Your task to perform on an android device: open chrome privacy settings Image 0: 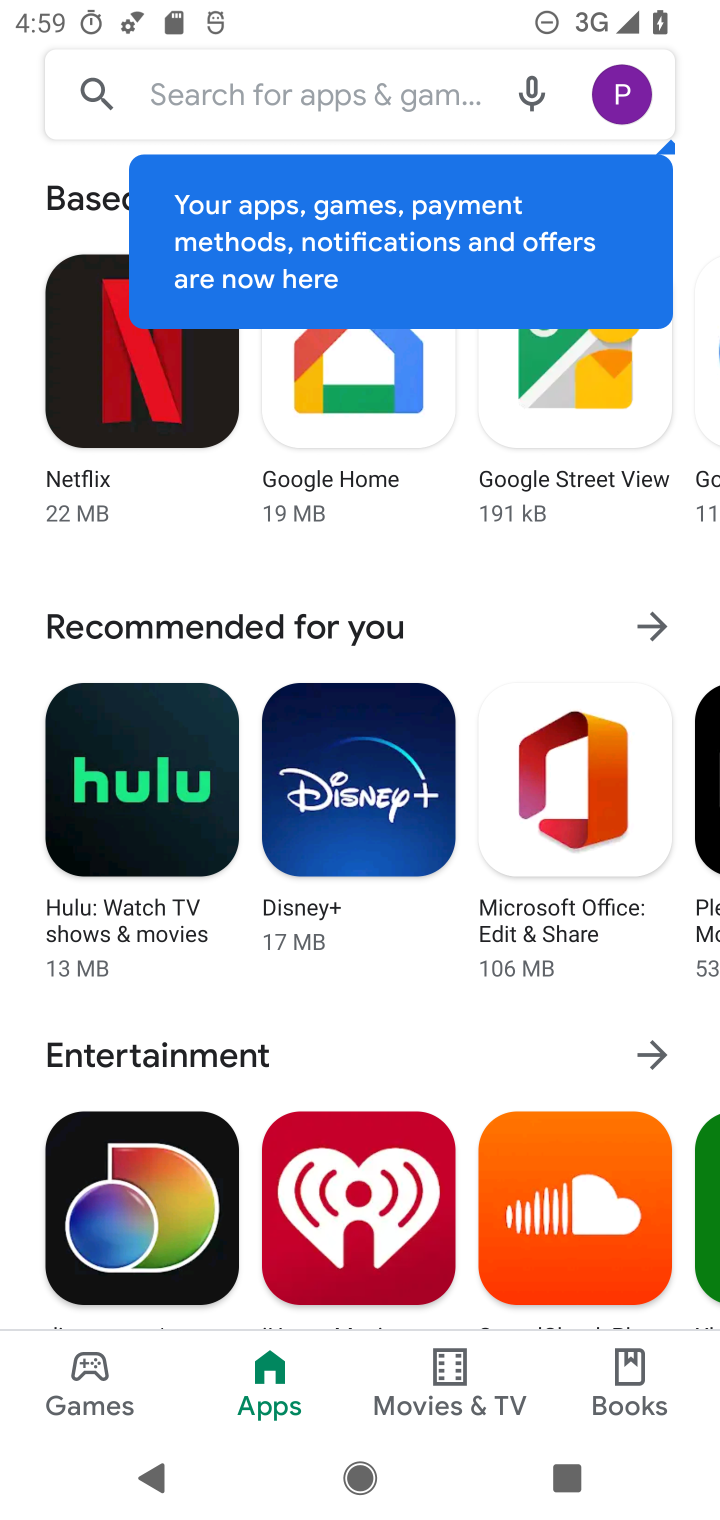
Step 0: press home button
Your task to perform on an android device: open chrome privacy settings Image 1: 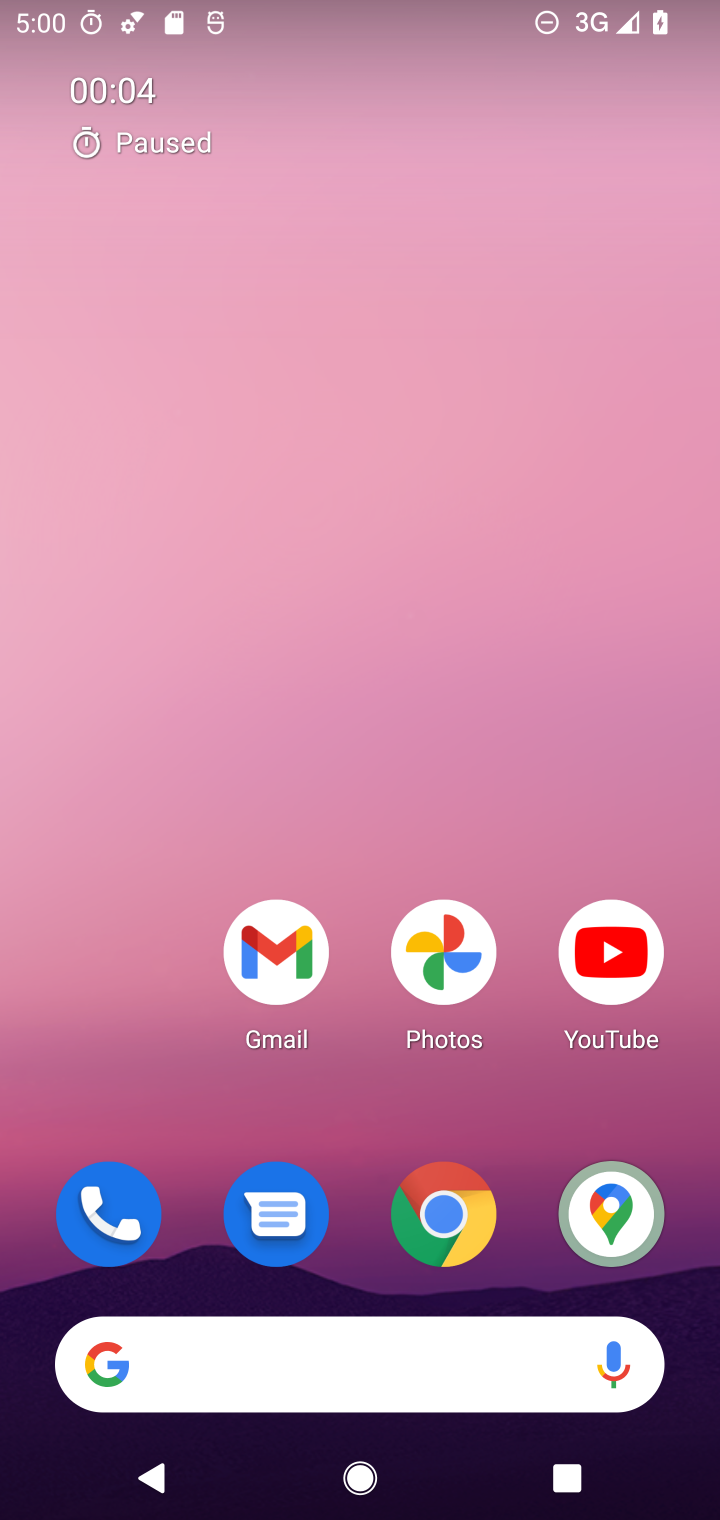
Step 1: click (444, 1232)
Your task to perform on an android device: open chrome privacy settings Image 2: 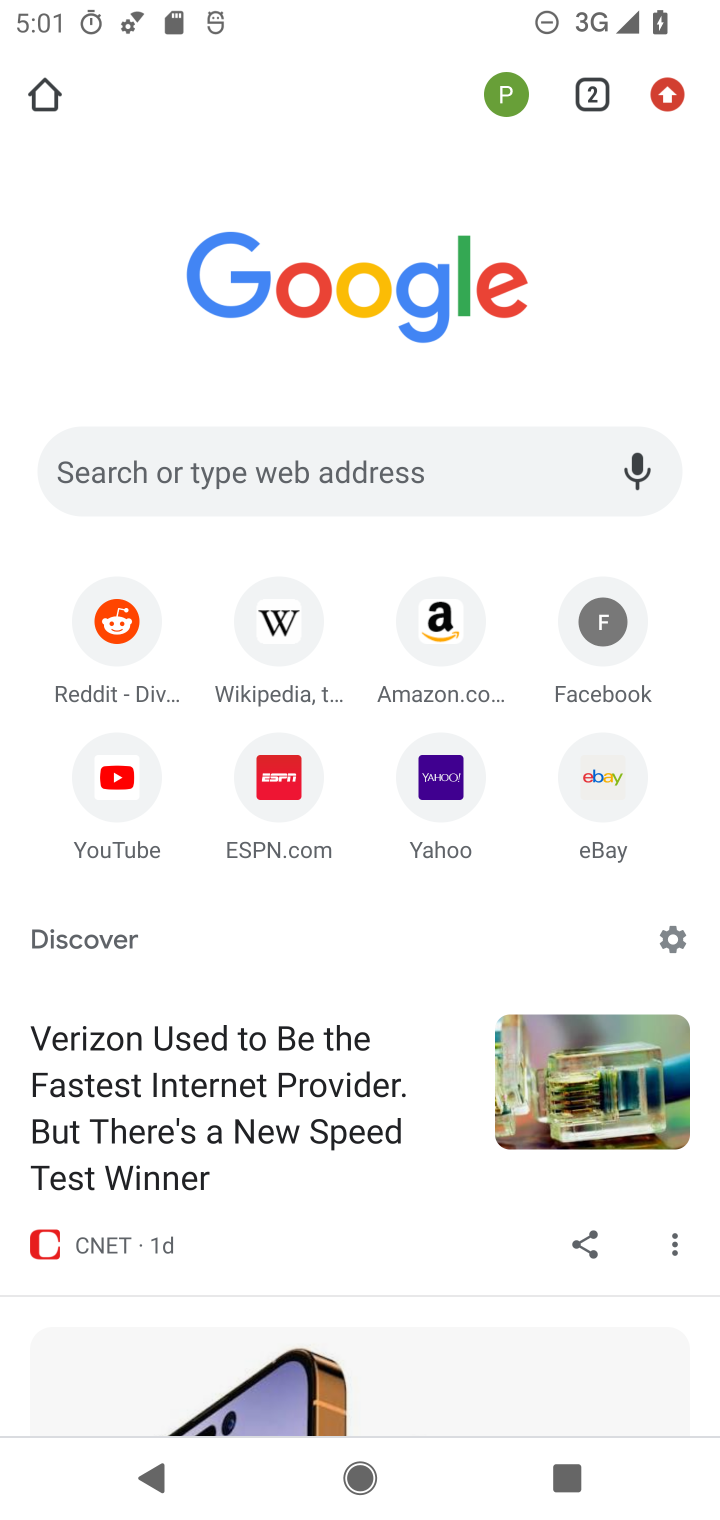
Step 2: click (668, 94)
Your task to perform on an android device: open chrome privacy settings Image 3: 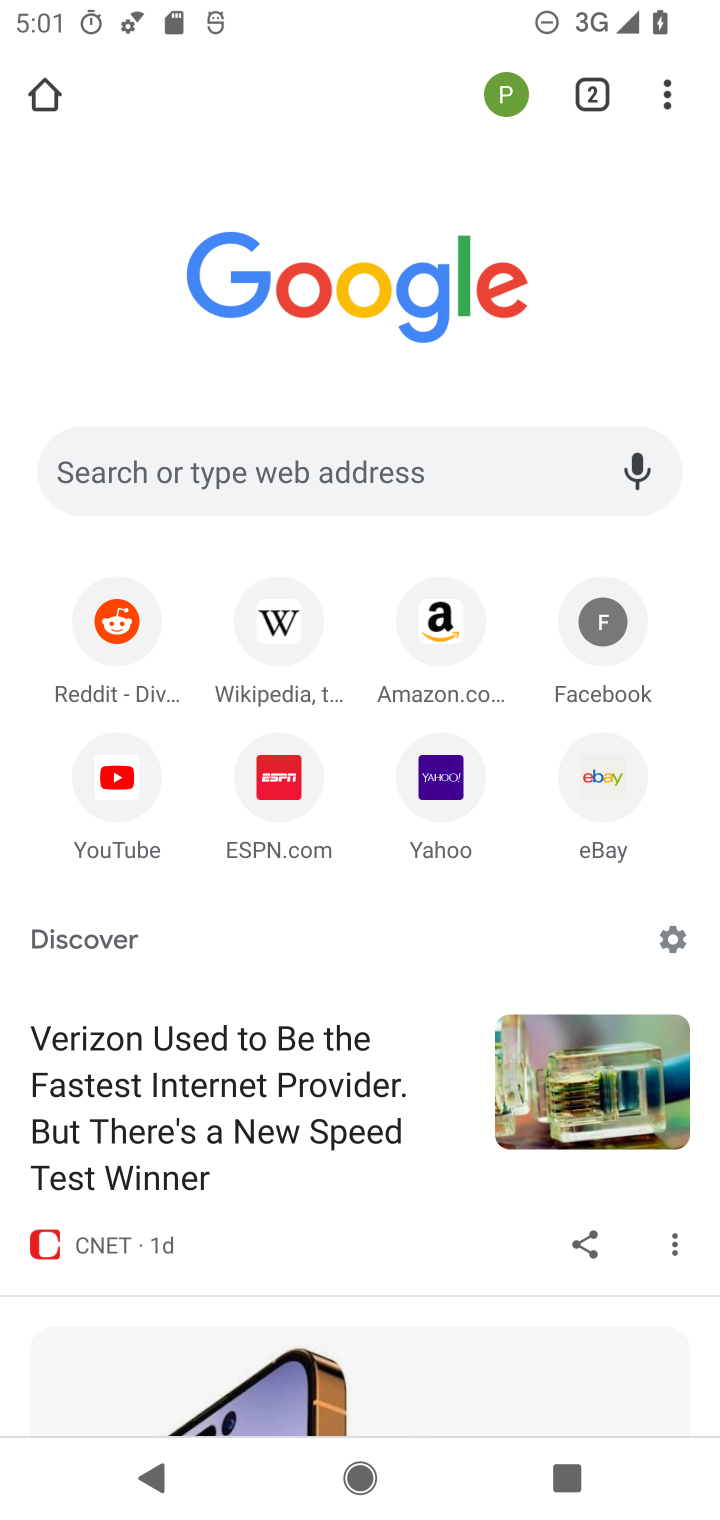
Step 3: click (668, 94)
Your task to perform on an android device: open chrome privacy settings Image 4: 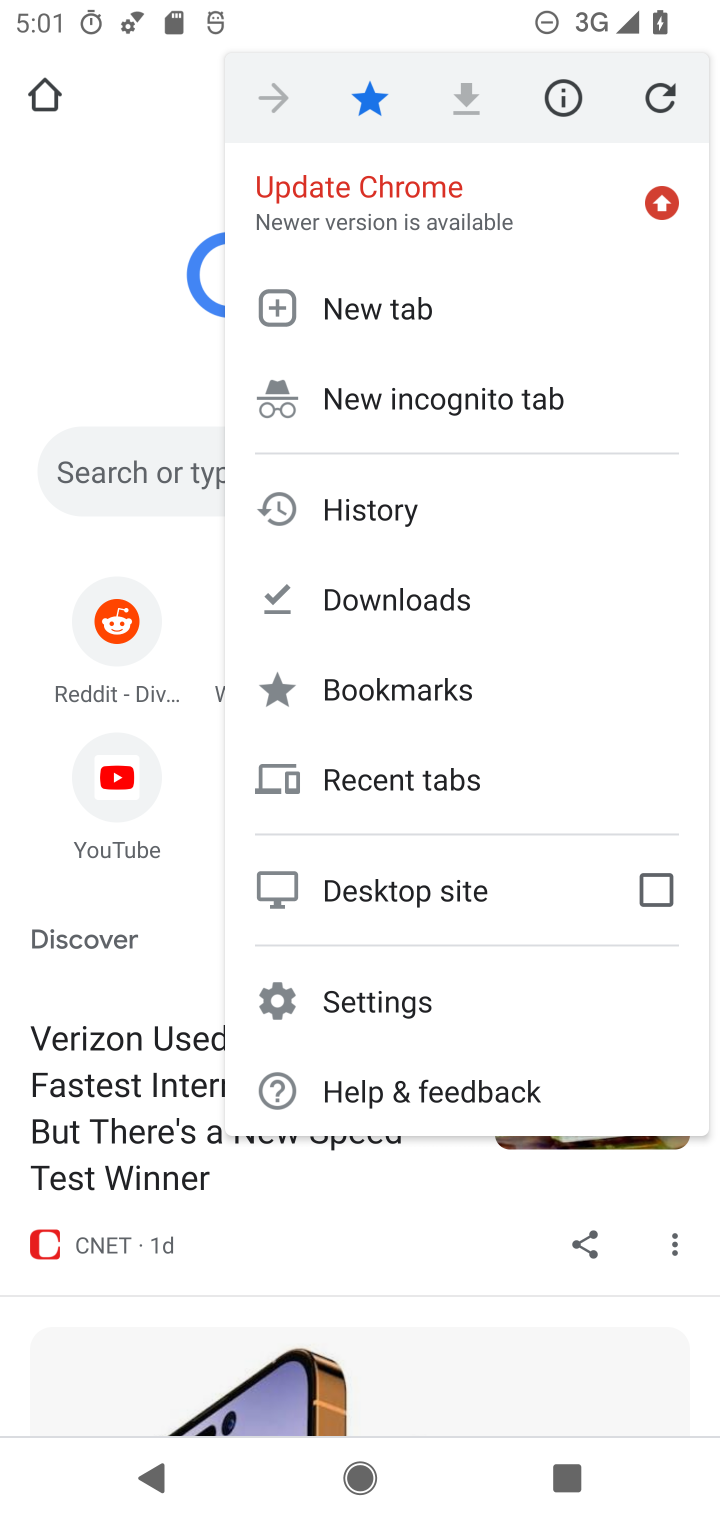
Step 4: click (361, 997)
Your task to perform on an android device: open chrome privacy settings Image 5: 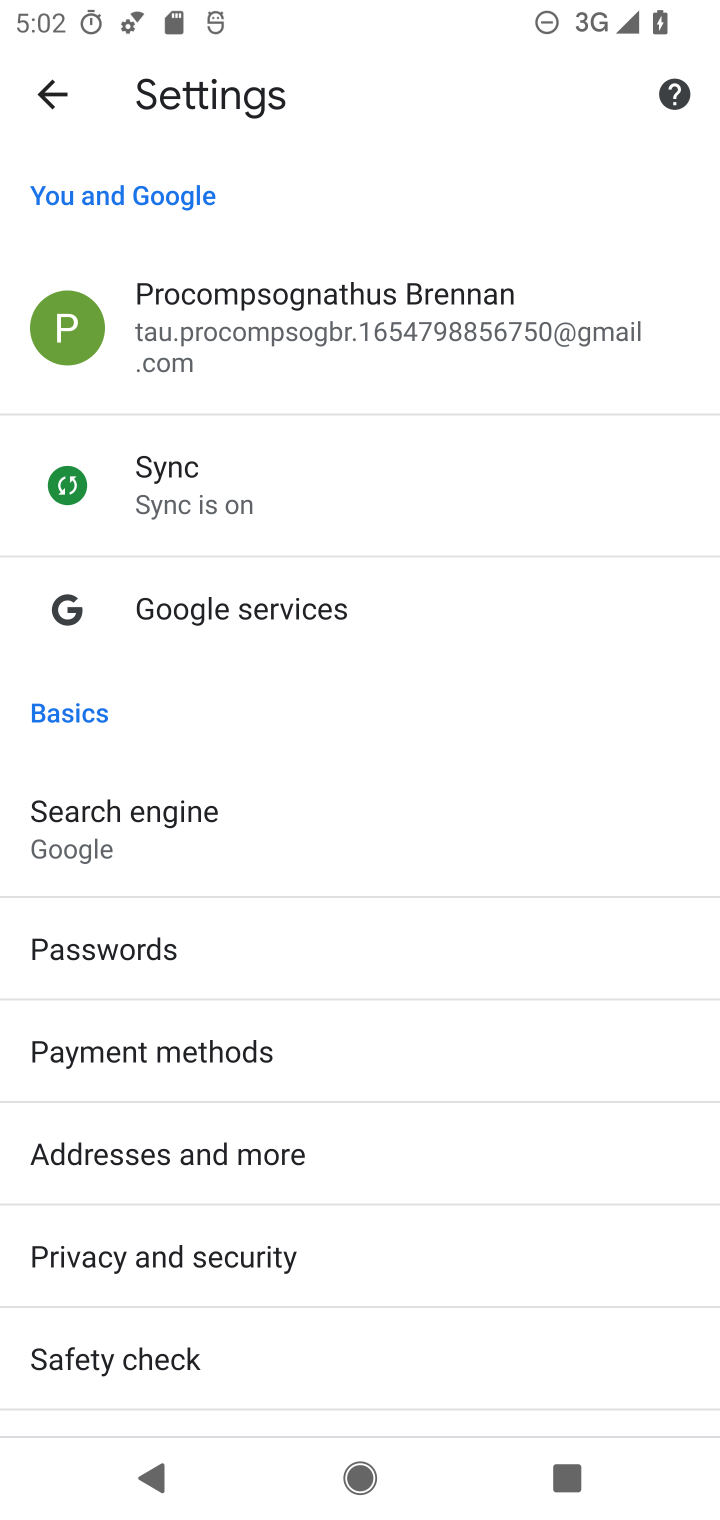
Step 5: drag from (196, 1269) to (182, 615)
Your task to perform on an android device: open chrome privacy settings Image 6: 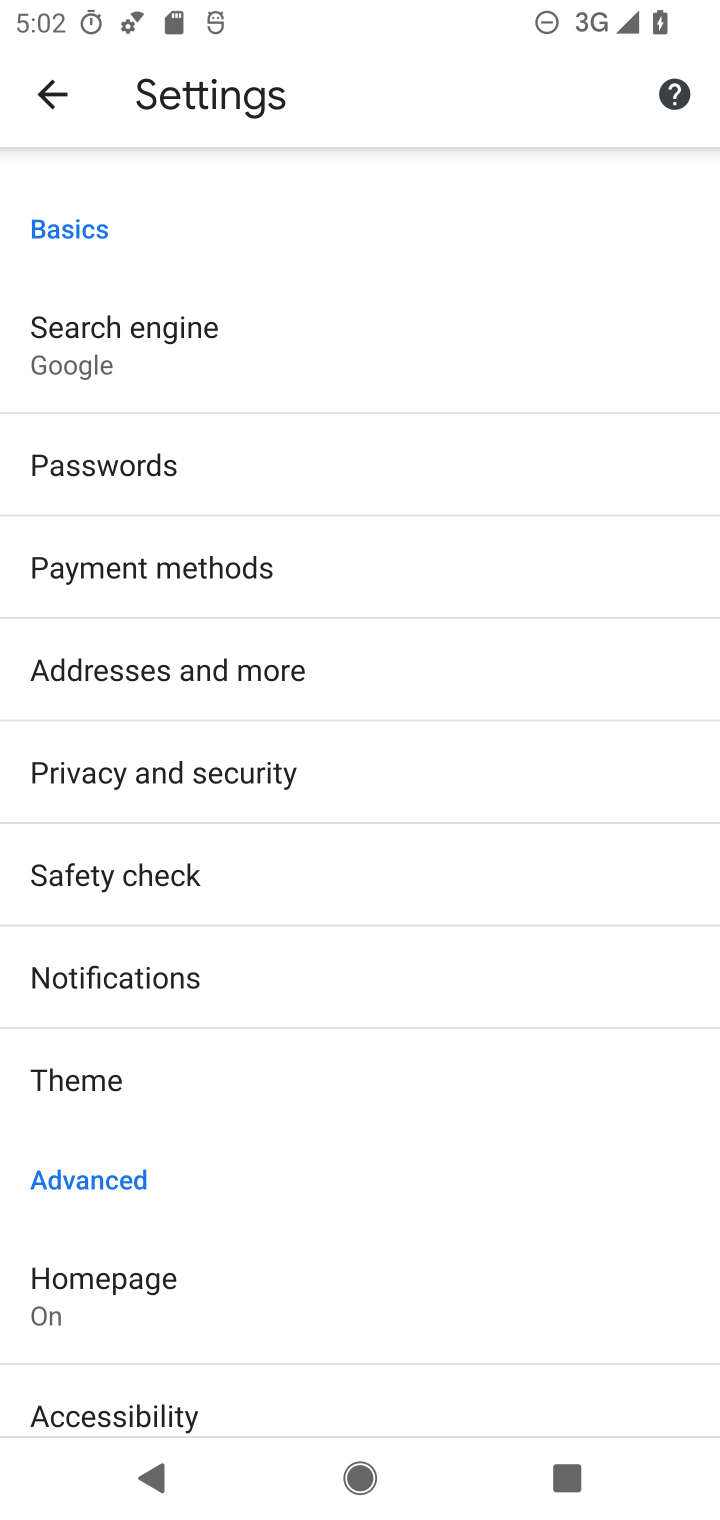
Step 6: drag from (201, 1065) to (214, 375)
Your task to perform on an android device: open chrome privacy settings Image 7: 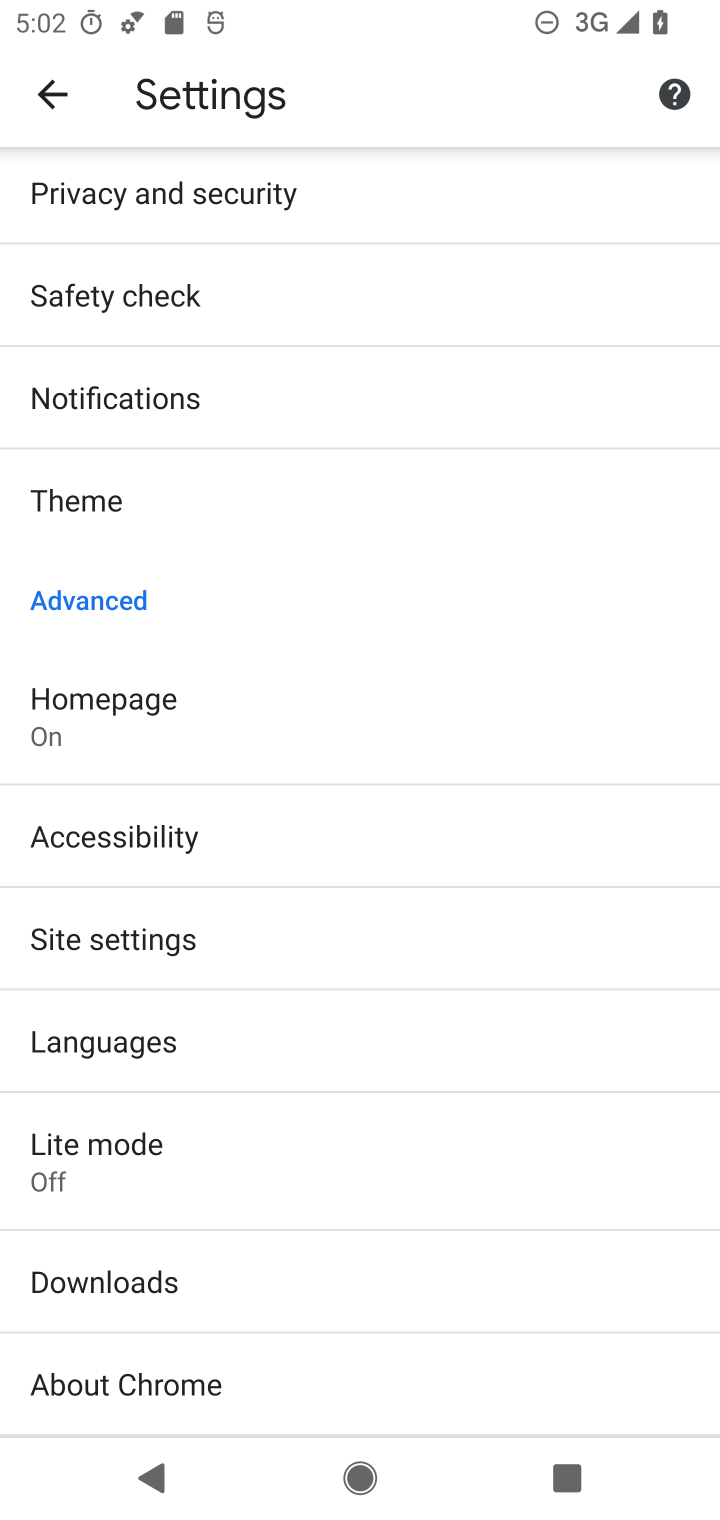
Step 7: click (213, 210)
Your task to perform on an android device: open chrome privacy settings Image 8: 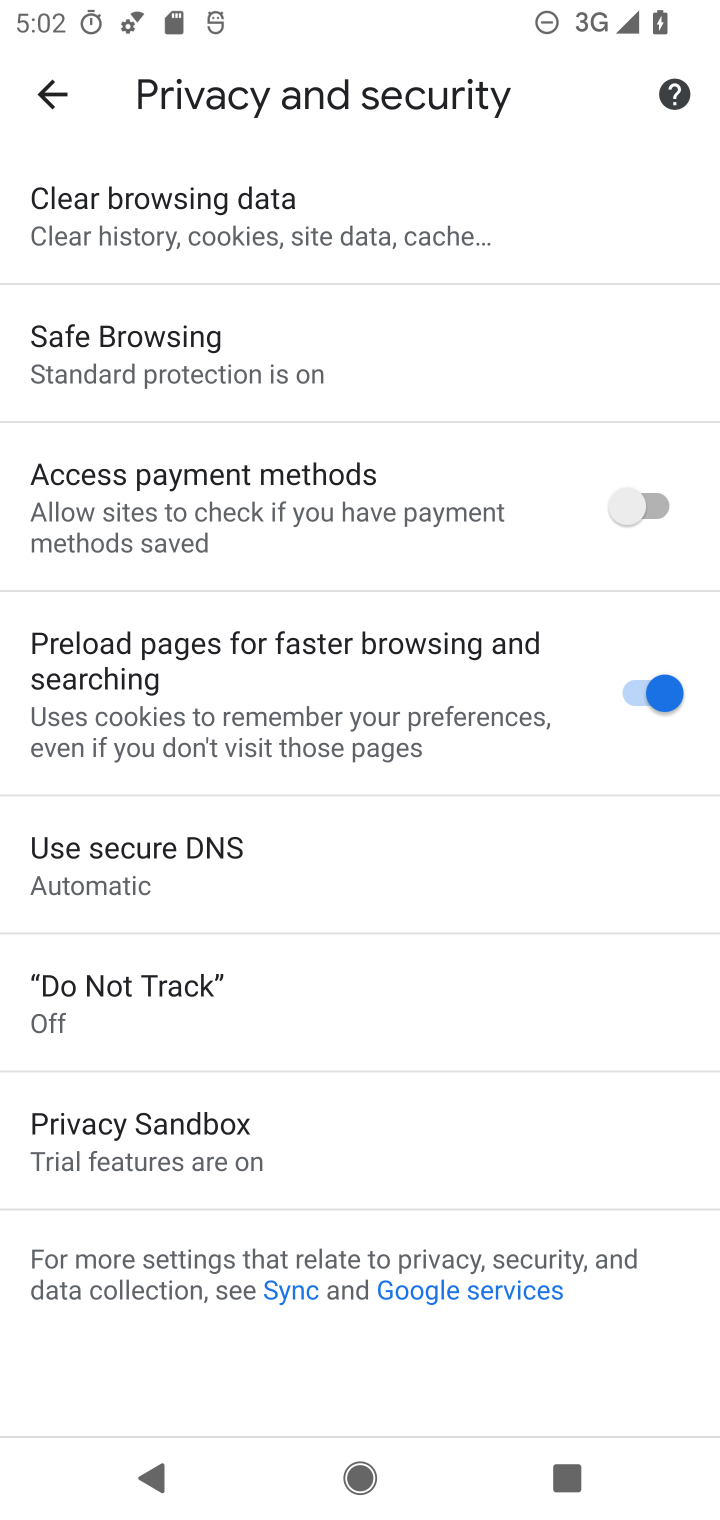
Step 8: task complete